Your task to perform on an android device: clear all cookies in the chrome app Image 0: 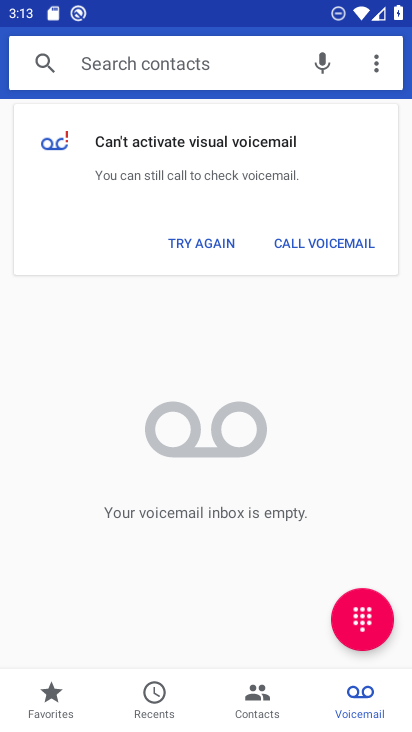
Step 0: click (196, 510)
Your task to perform on an android device: clear all cookies in the chrome app Image 1: 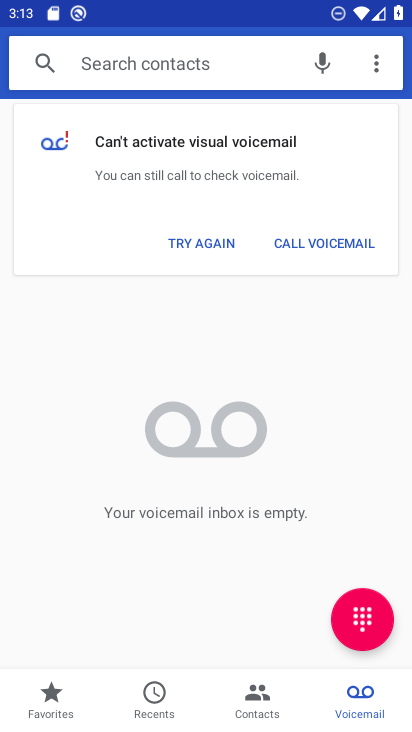
Step 1: click (280, 461)
Your task to perform on an android device: clear all cookies in the chrome app Image 2: 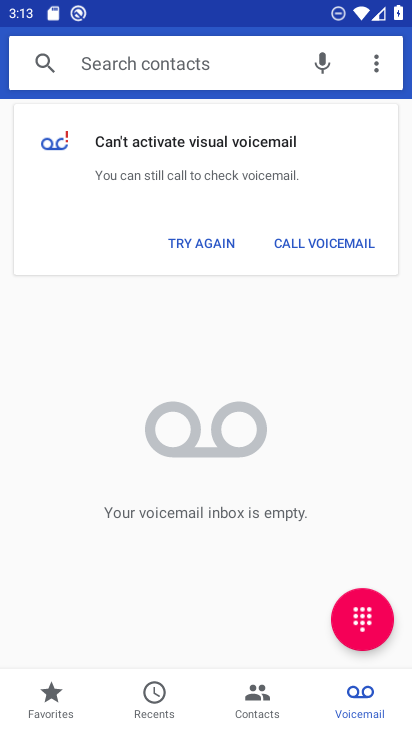
Step 2: click (266, 419)
Your task to perform on an android device: clear all cookies in the chrome app Image 3: 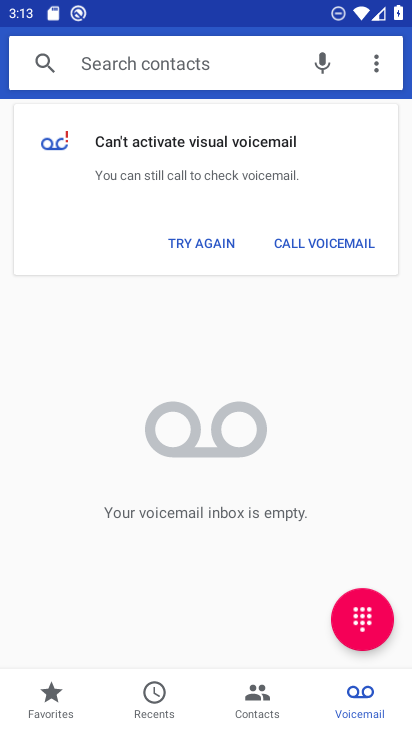
Step 3: click (277, 461)
Your task to perform on an android device: clear all cookies in the chrome app Image 4: 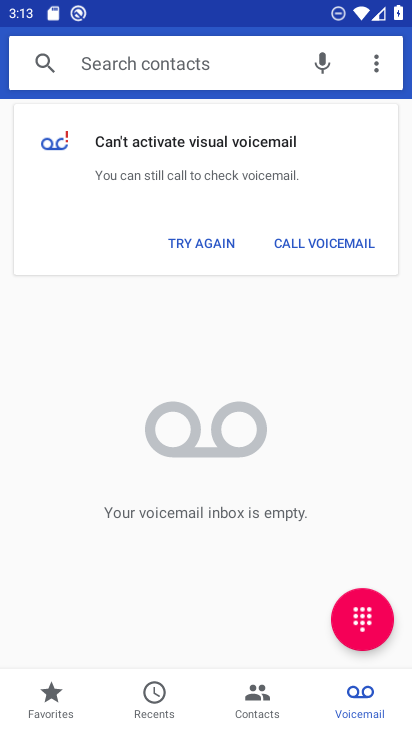
Step 4: click (220, 443)
Your task to perform on an android device: clear all cookies in the chrome app Image 5: 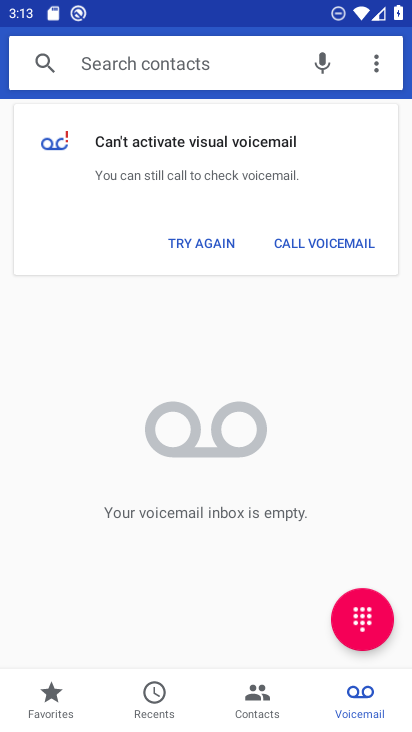
Step 5: click (208, 441)
Your task to perform on an android device: clear all cookies in the chrome app Image 6: 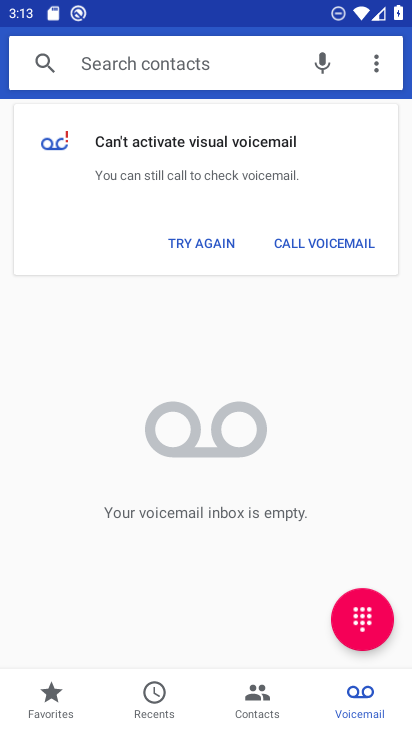
Step 6: click (205, 435)
Your task to perform on an android device: clear all cookies in the chrome app Image 7: 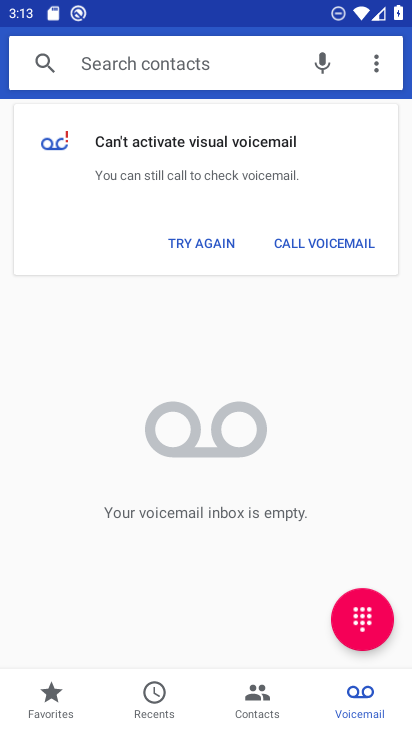
Step 7: press home button
Your task to perform on an android device: clear all cookies in the chrome app Image 8: 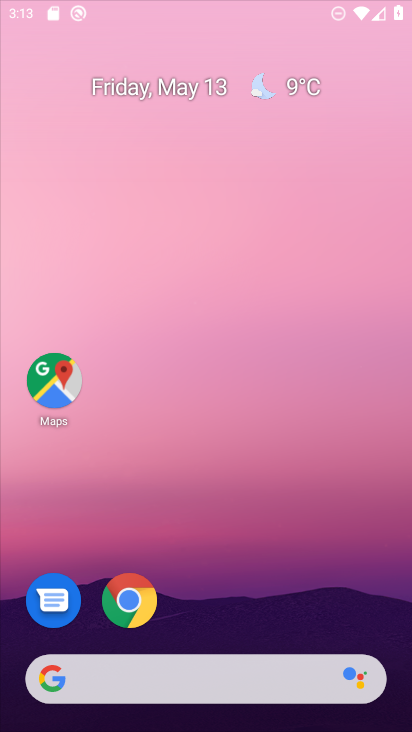
Step 8: drag from (160, 592) to (292, 1)
Your task to perform on an android device: clear all cookies in the chrome app Image 9: 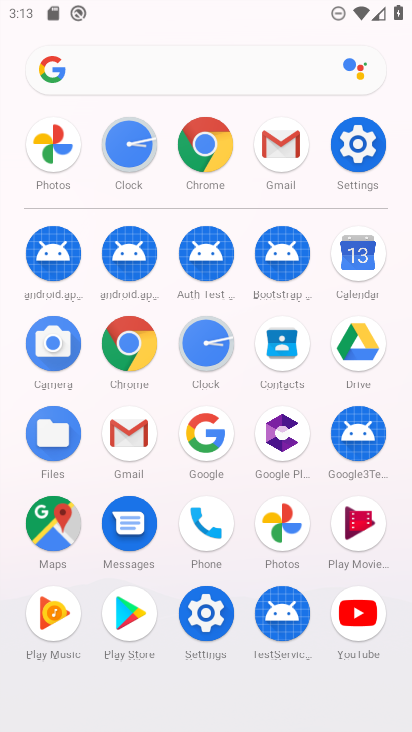
Step 9: click (207, 142)
Your task to perform on an android device: clear all cookies in the chrome app Image 10: 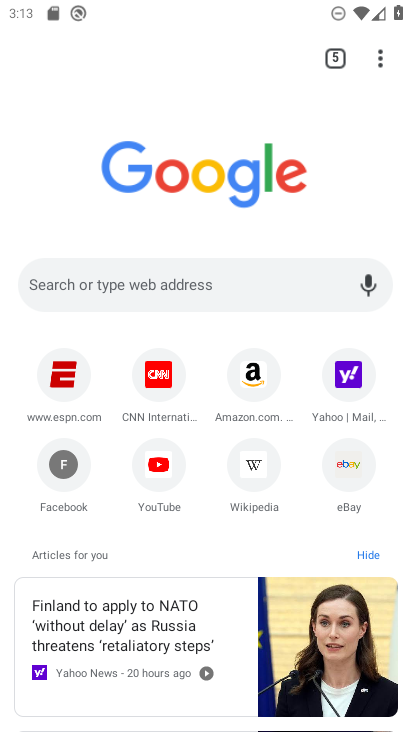
Step 10: drag from (388, 57) to (207, 489)
Your task to perform on an android device: clear all cookies in the chrome app Image 11: 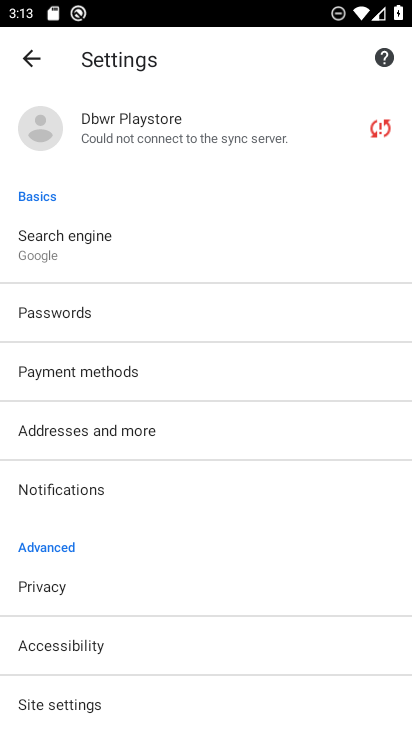
Step 11: drag from (156, 655) to (280, 165)
Your task to perform on an android device: clear all cookies in the chrome app Image 12: 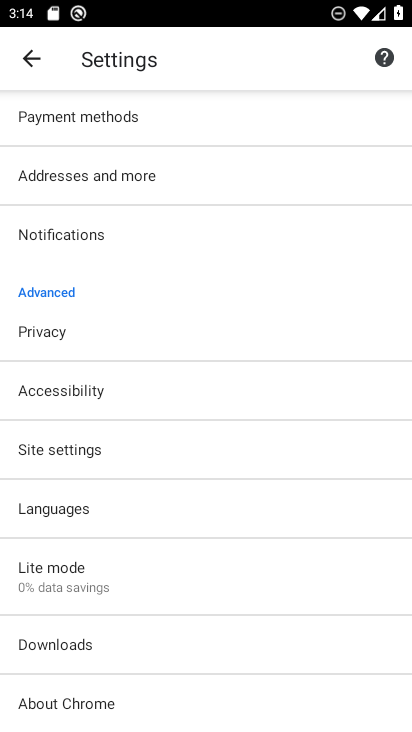
Step 12: click (45, 67)
Your task to perform on an android device: clear all cookies in the chrome app Image 13: 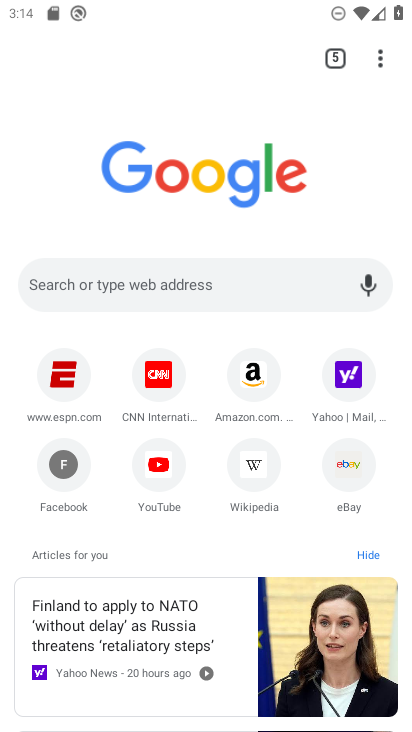
Step 13: drag from (390, 47) to (167, 325)
Your task to perform on an android device: clear all cookies in the chrome app Image 14: 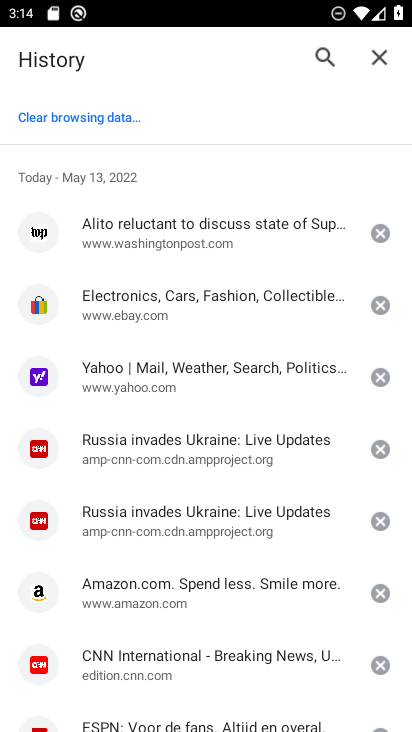
Step 14: click (51, 119)
Your task to perform on an android device: clear all cookies in the chrome app Image 15: 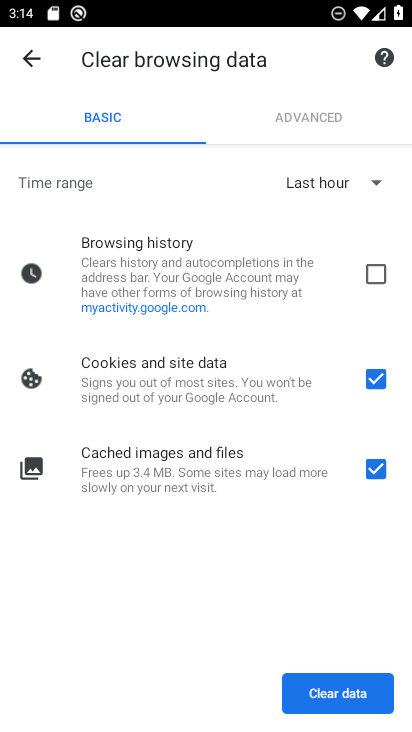
Step 15: click (347, 694)
Your task to perform on an android device: clear all cookies in the chrome app Image 16: 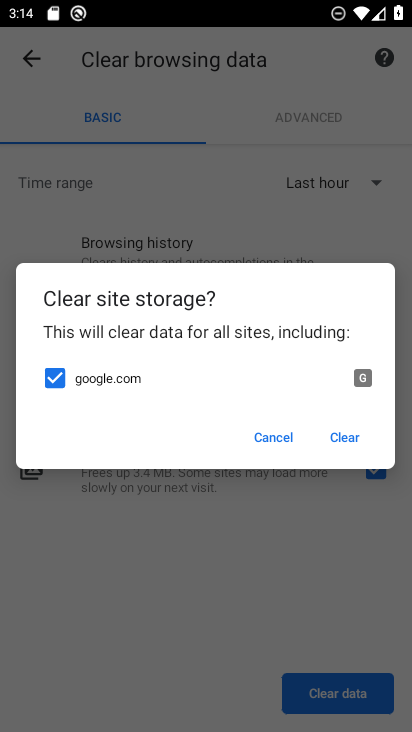
Step 16: click (293, 451)
Your task to perform on an android device: clear all cookies in the chrome app Image 17: 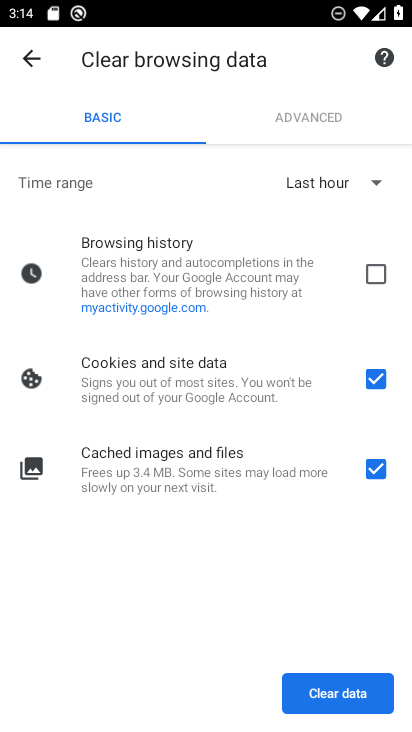
Step 17: click (274, 689)
Your task to perform on an android device: clear all cookies in the chrome app Image 18: 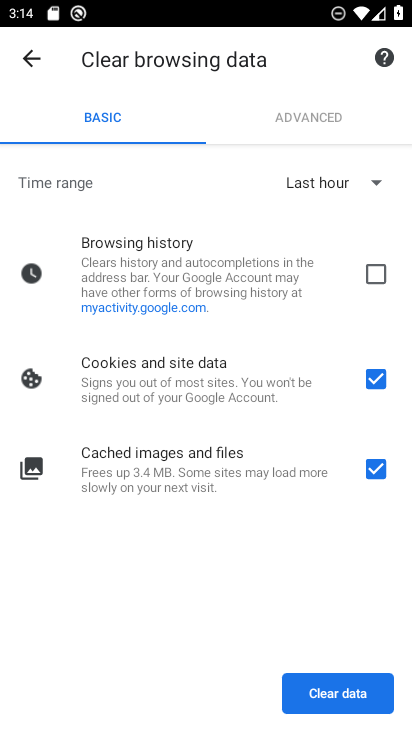
Step 18: click (331, 696)
Your task to perform on an android device: clear all cookies in the chrome app Image 19: 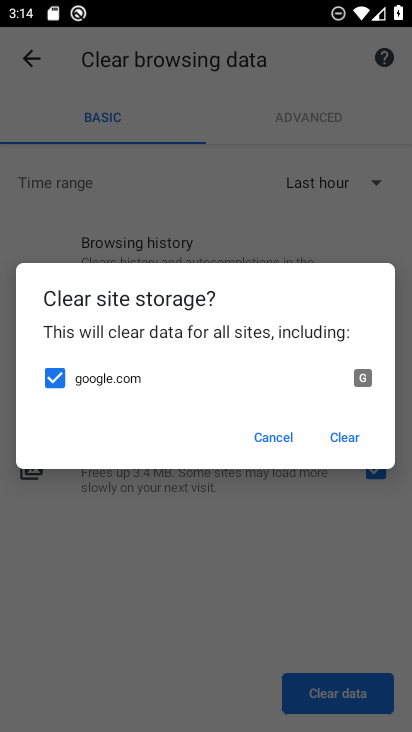
Step 19: click (350, 442)
Your task to perform on an android device: clear all cookies in the chrome app Image 20: 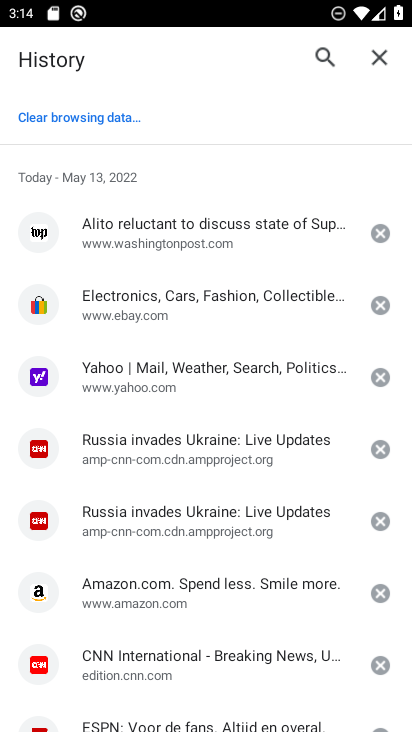
Step 20: task complete